Your task to perform on an android device: change timer sound Image 0: 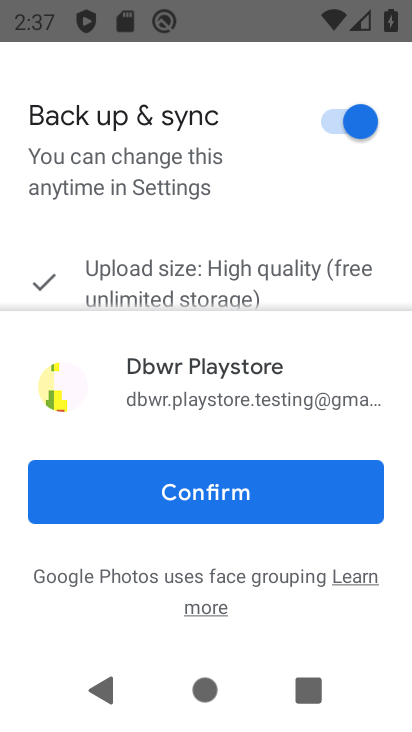
Step 0: press home button
Your task to perform on an android device: change timer sound Image 1: 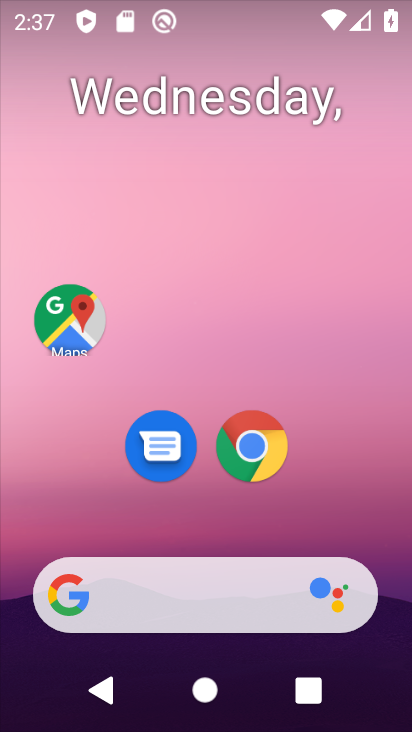
Step 1: drag from (189, 343) to (323, 9)
Your task to perform on an android device: change timer sound Image 2: 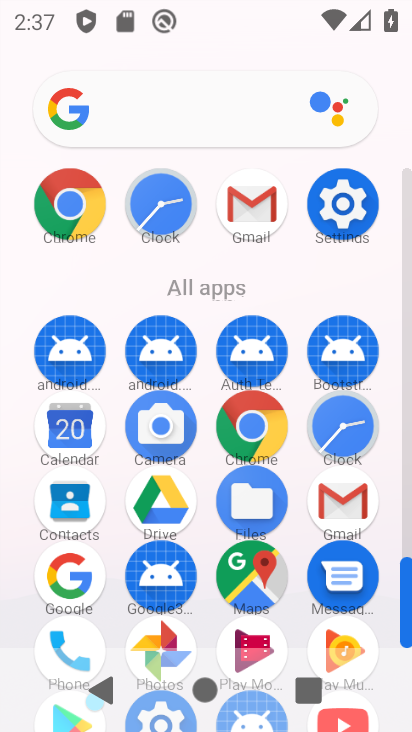
Step 2: click (346, 429)
Your task to perform on an android device: change timer sound Image 3: 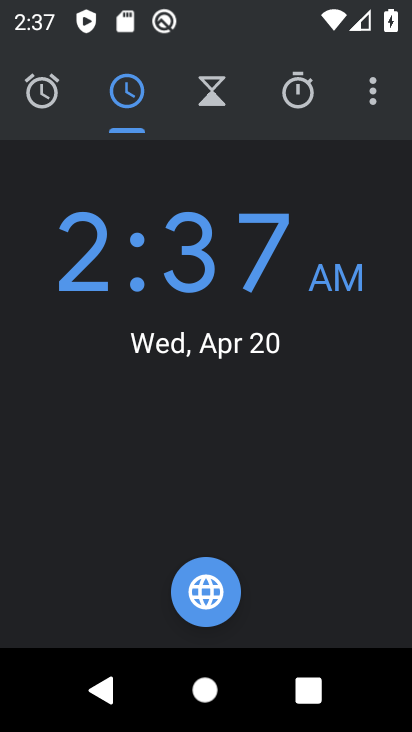
Step 3: click (377, 92)
Your task to perform on an android device: change timer sound Image 4: 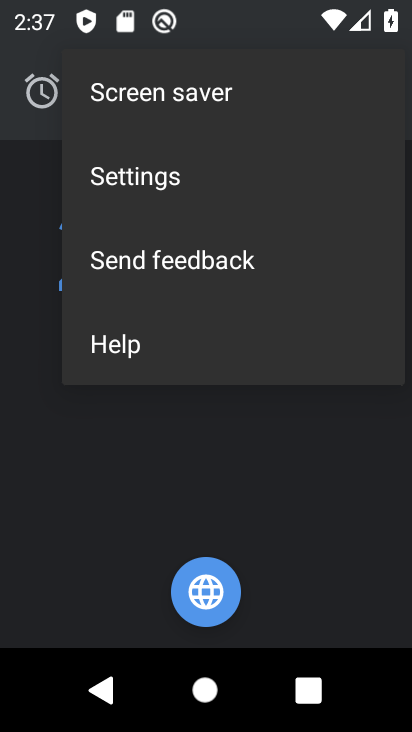
Step 4: click (174, 177)
Your task to perform on an android device: change timer sound Image 5: 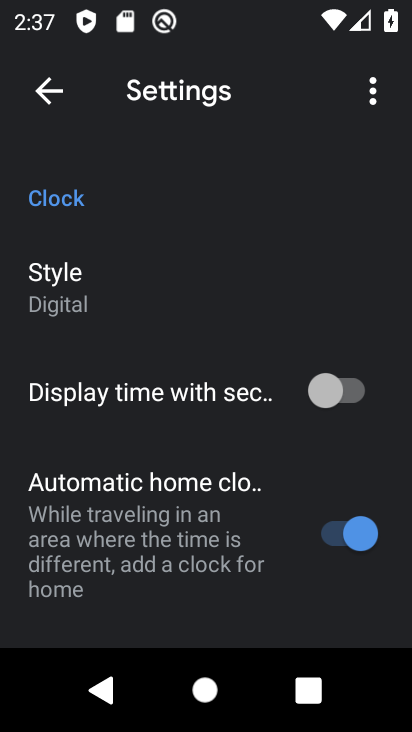
Step 5: drag from (165, 607) to (255, 346)
Your task to perform on an android device: change timer sound Image 6: 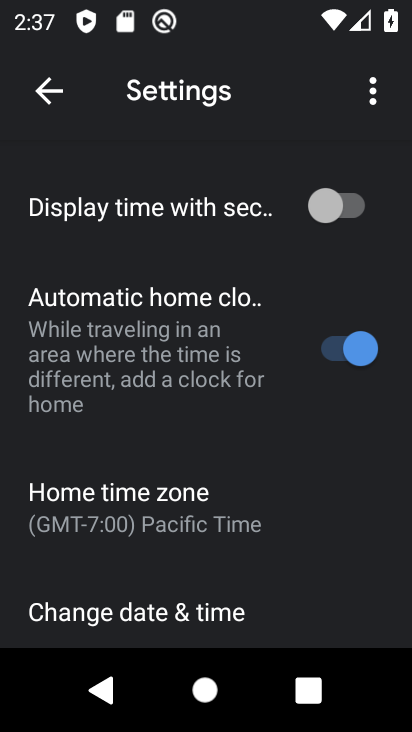
Step 6: drag from (198, 557) to (243, 367)
Your task to perform on an android device: change timer sound Image 7: 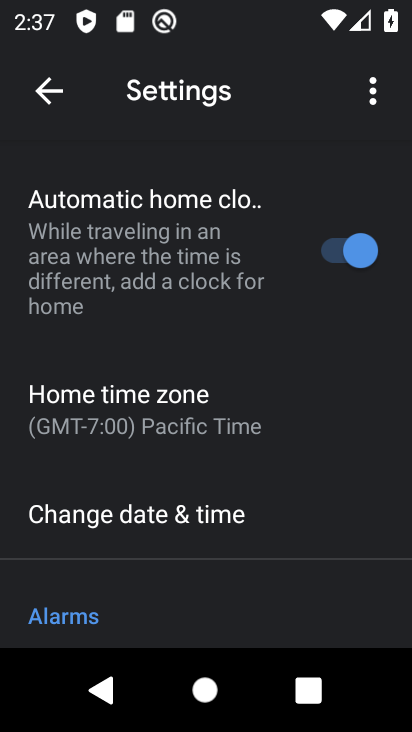
Step 7: drag from (207, 463) to (286, 310)
Your task to perform on an android device: change timer sound Image 8: 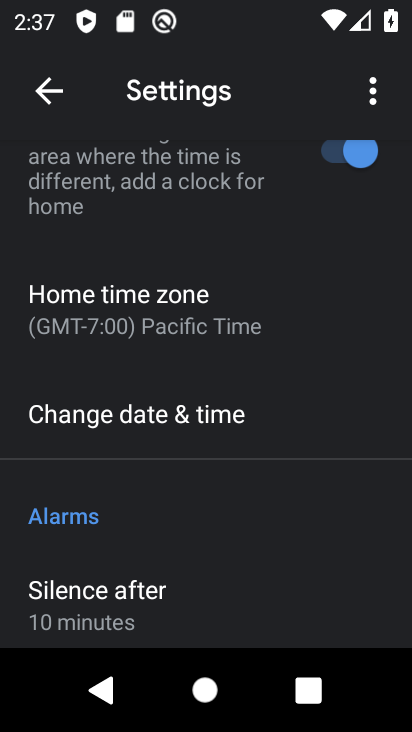
Step 8: drag from (221, 501) to (301, 334)
Your task to perform on an android device: change timer sound Image 9: 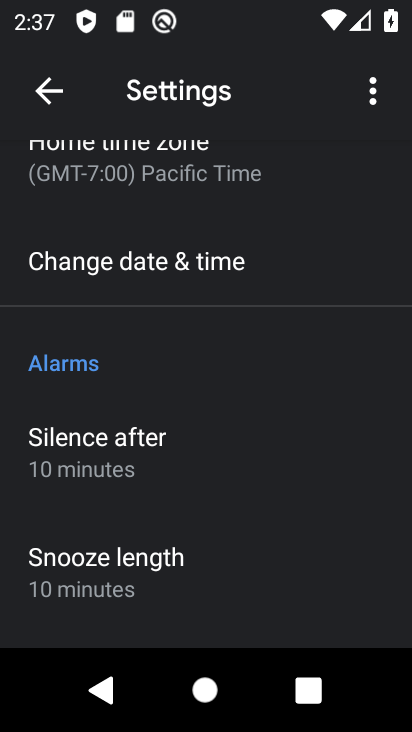
Step 9: drag from (222, 471) to (308, 326)
Your task to perform on an android device: change timer sound Image 10: 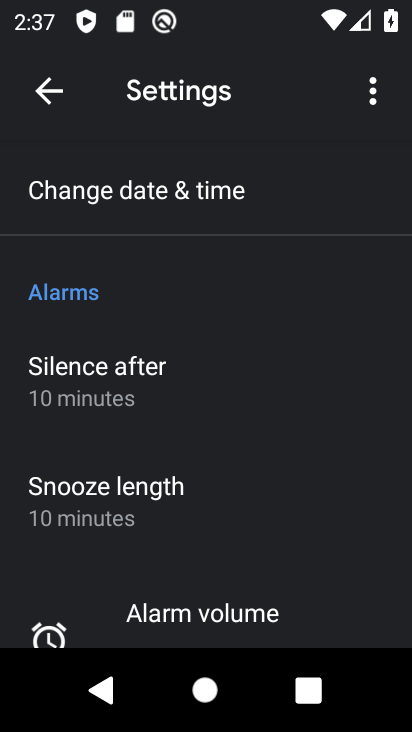
Step 10: drag from (228, 483) to (333, 303)
Your task to perform on an android device: change timer sound Image 11: 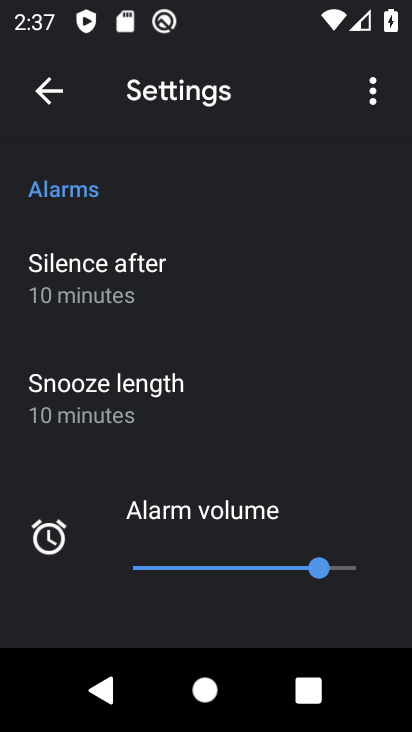
Step 11: drag from (260, 453) to (331, 276)
Your task to perform on an android device: change timer sound Image 12: 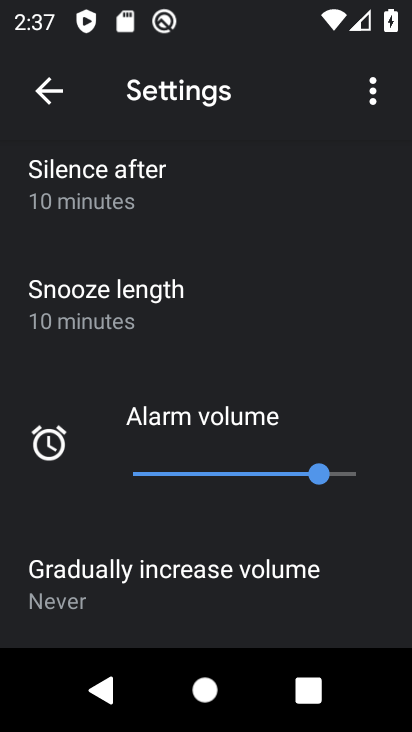
Step 12: drag from (227, 468) to (318, 284)
Your task to perform on an android device: change timer sound Image 13: 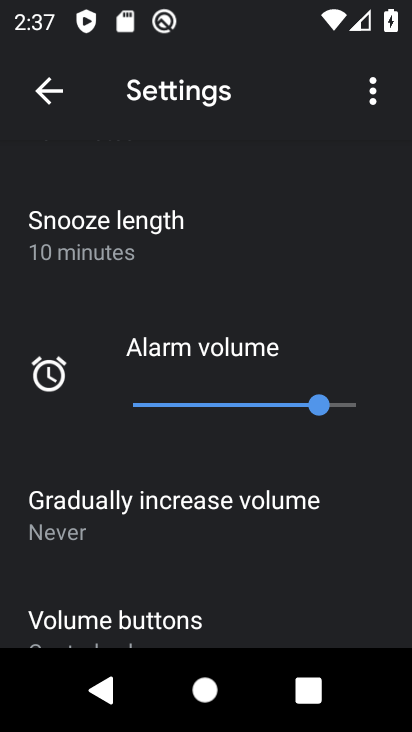
Step 13: drag from (198, 538) to (307, 312)
Your task to perform on an android device: change timer sound Image 14: 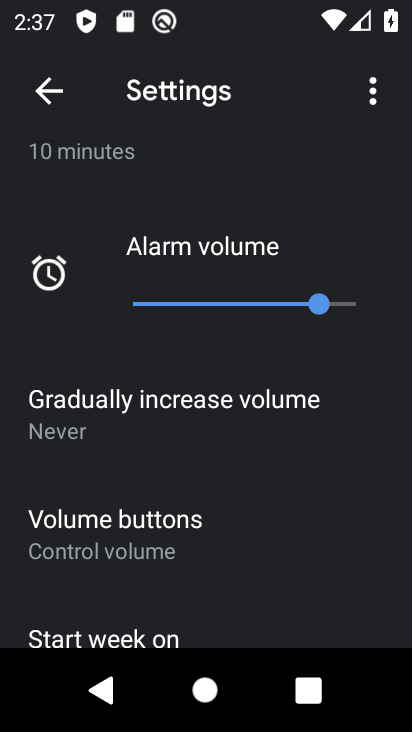
Step 14: drag from (228, 521) to (347, 286)
Your task to perform on an android device: change timer sound Image 15: 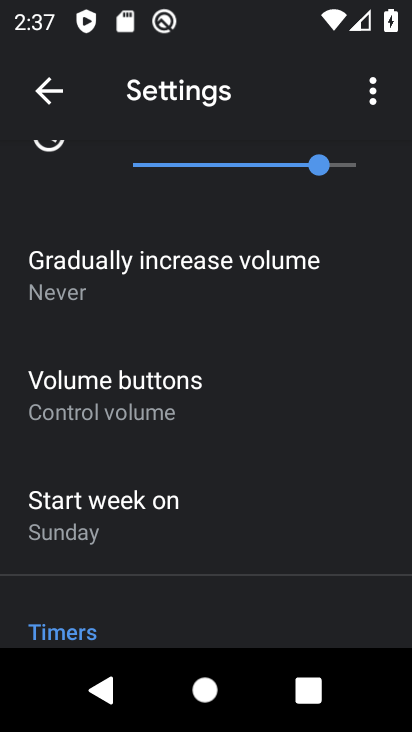
Step 15: drag from (219, 537) to (347, 323)
Your task to perform on an android device: change timer sound Image 16: 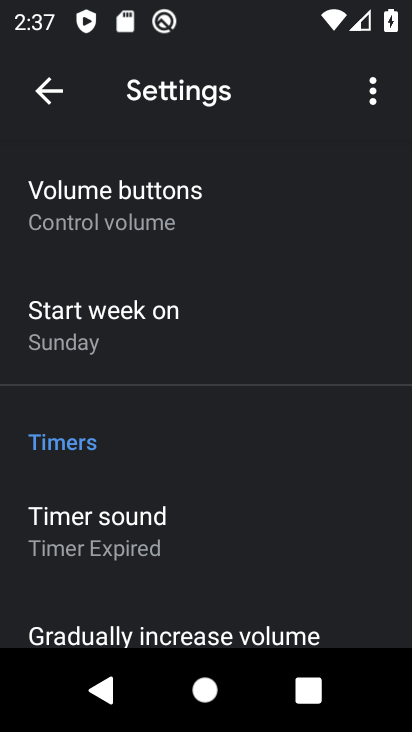
Step 16: drag from (242, 476) to (332, 332)
Your task to perform on an android device: change timer sound Image 17: 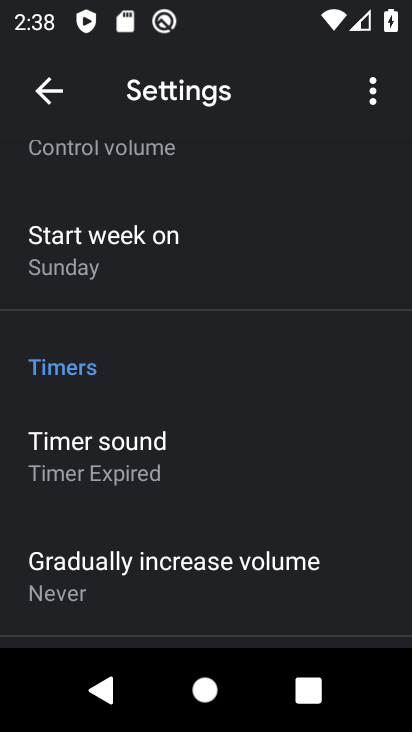
Step 17: click (128, 449)
Your task to perform on an android device: change timer sound Image 18: 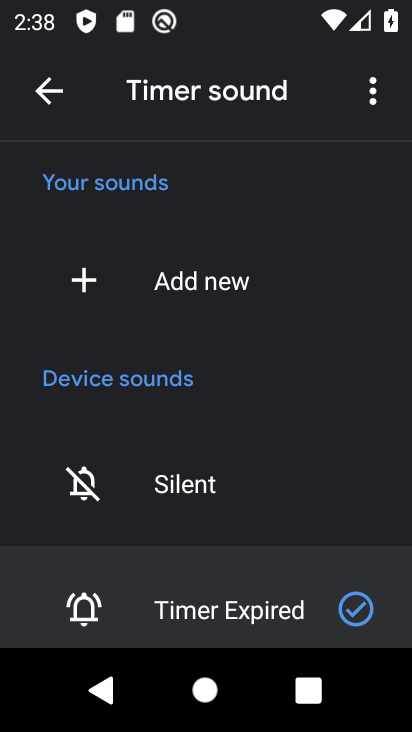
Step 18: drag from (272, 472) to (321, 272)
Your task to perform on an android device: change timer sound Image 19: 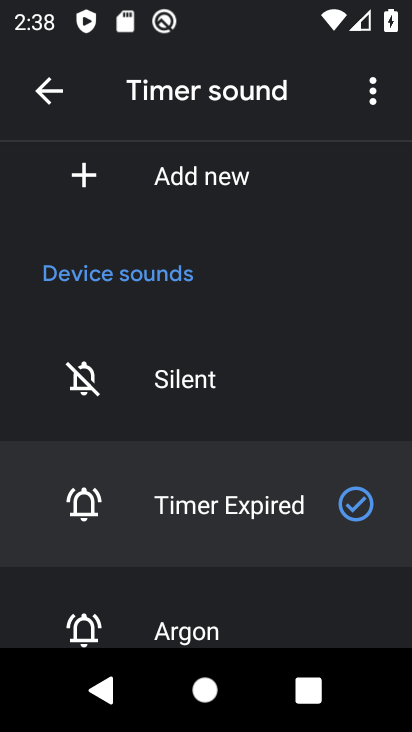
Step 19: drag from (246, 589) to (350, 290)
Your task to perform on an android device: change timer sound Image 20: 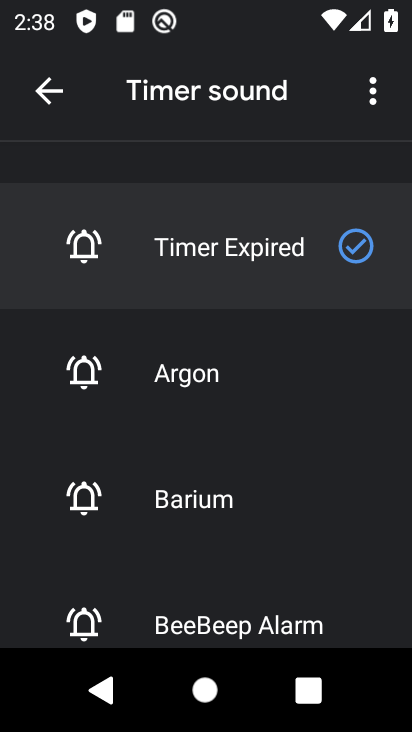
Step 20: click (221, 503)
Your task to perform on an android device: change timer sound Image 21: 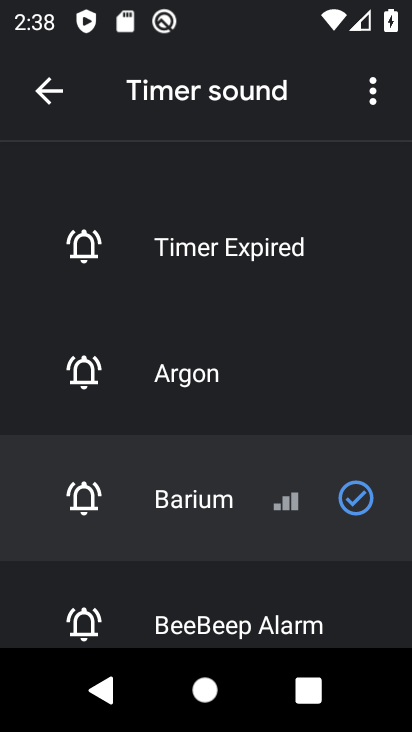
Step 21: task complete